Your task to perform on an android device: Show the shopping cart on bestbuy.com. Image 0: 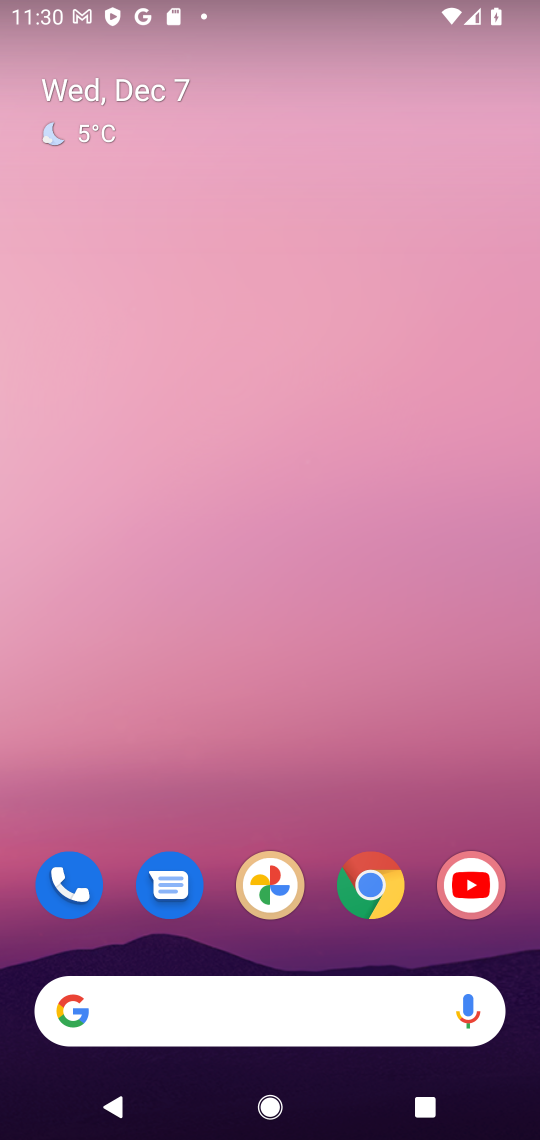
Step 0: click (375, 901)
Your task to perform on an android device: Show the shopping cart on bestbuy.com. Image 1: 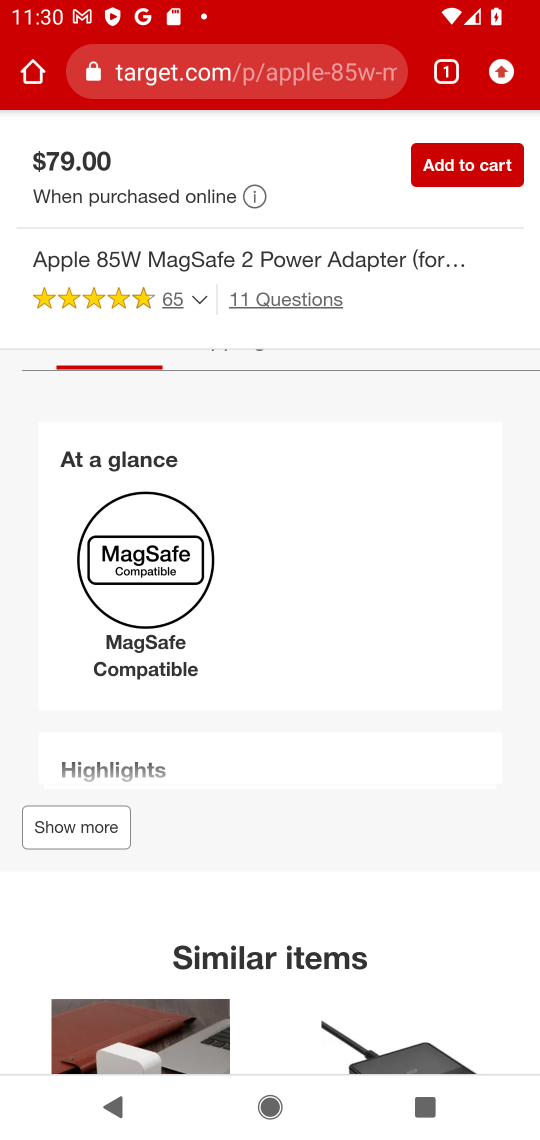
Step 1: click (274, 66)
Your task to perform on an android device: Show the shopping cart on bestbuy.com. Image 2: 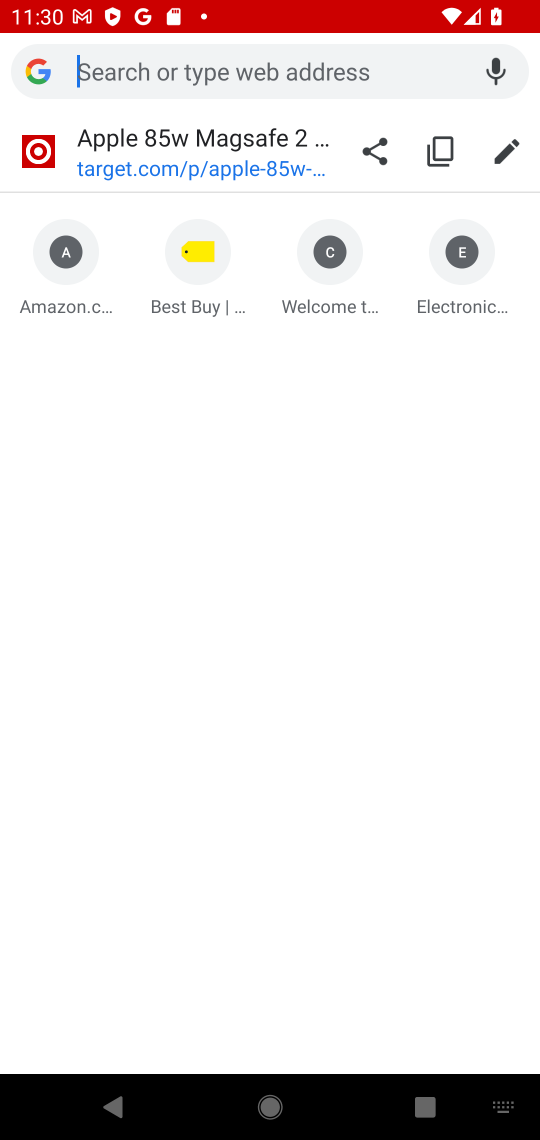
Step 2: click (197, 271)
Your task to perform on an android device: Show the shopping cart on bestbuy.com. Image 3: 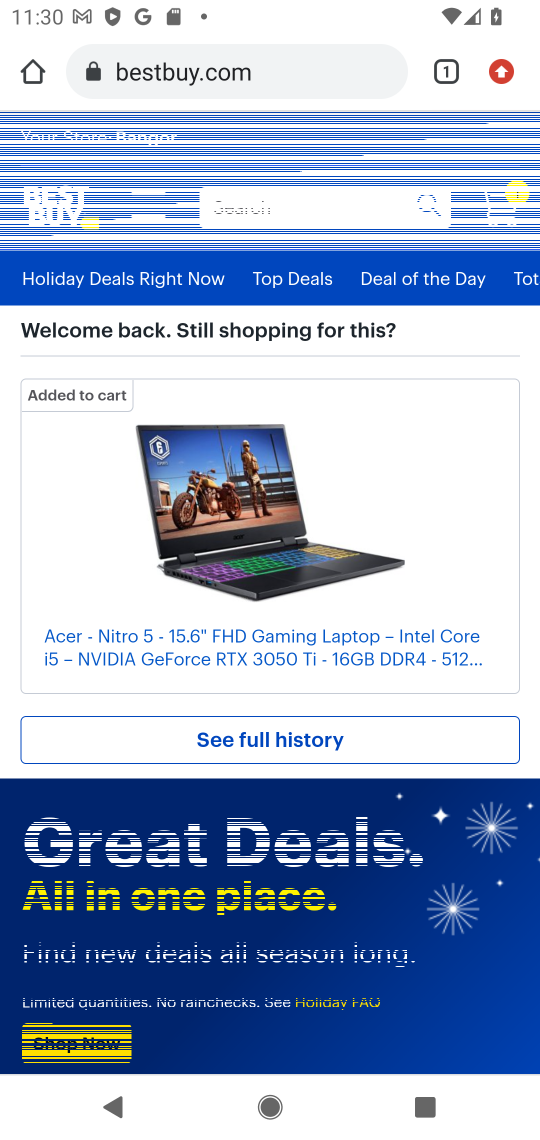
Step 3: click (294, 202)
Your task to perform on an android device: Show the shopping cart on bestbuy.com. Image 4: 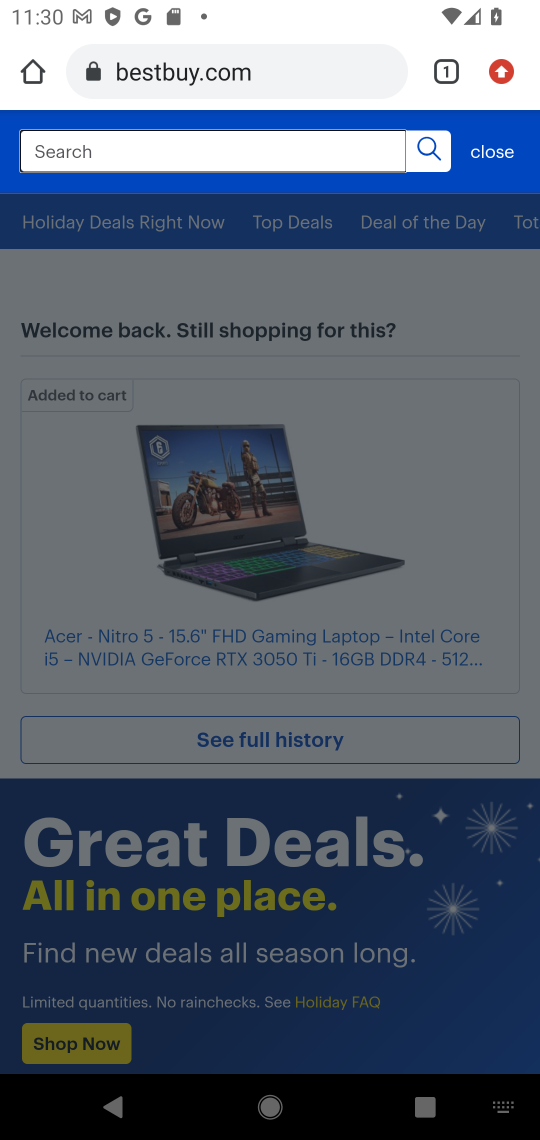
Step 4: click (245, 64)
Your task to perform on an android device: Show the shopping cart on bestbuy.com. Image 5: 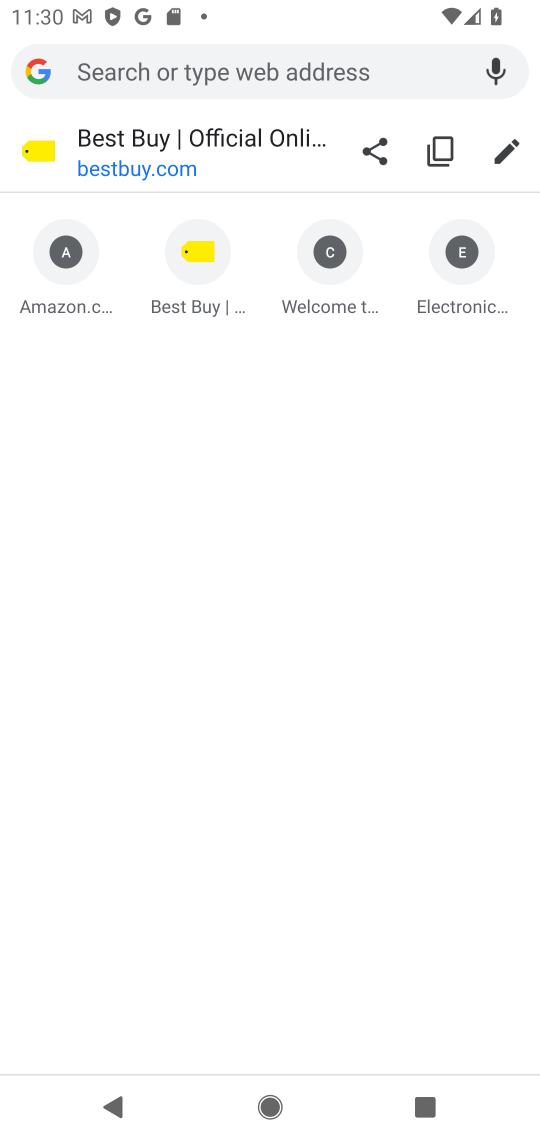
Step 5: click (79, 148)
Your task to perform on an android device: Show the shopping cart on bestbuy.com. Image 6: 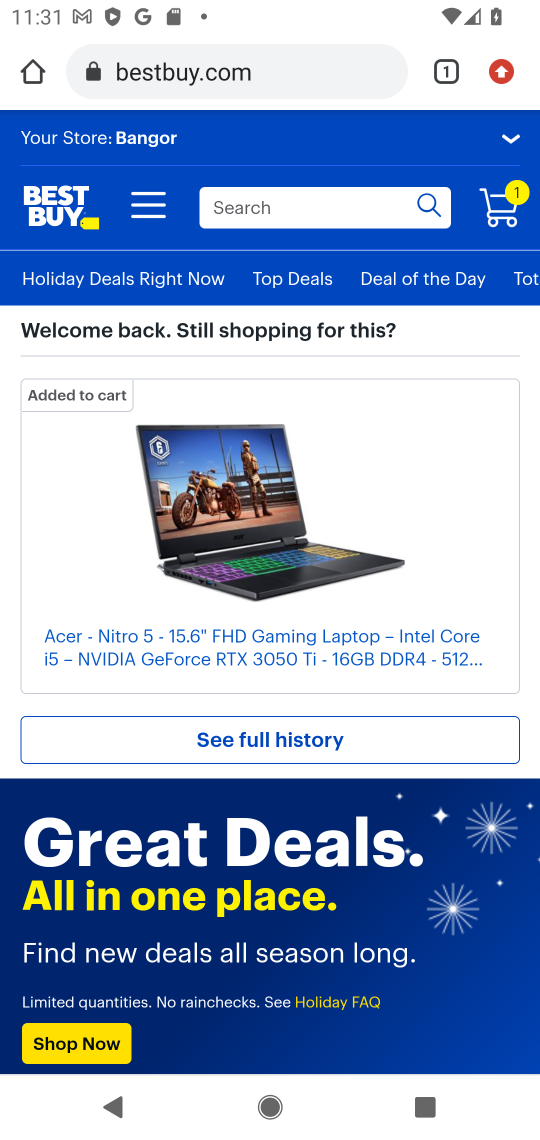
Step 6: click (496, 205)
Your task to perform on an android device: Show the shopping cart on bestbuy.com. Image 7: 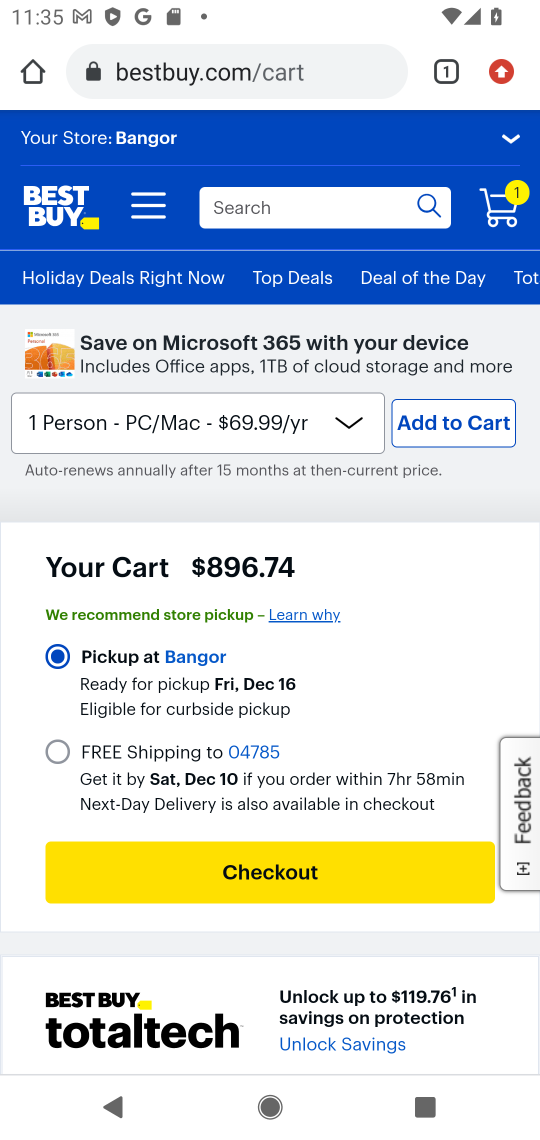
Step 7: task complete